Your task to perform on an android device: Go to eBay Image 0: 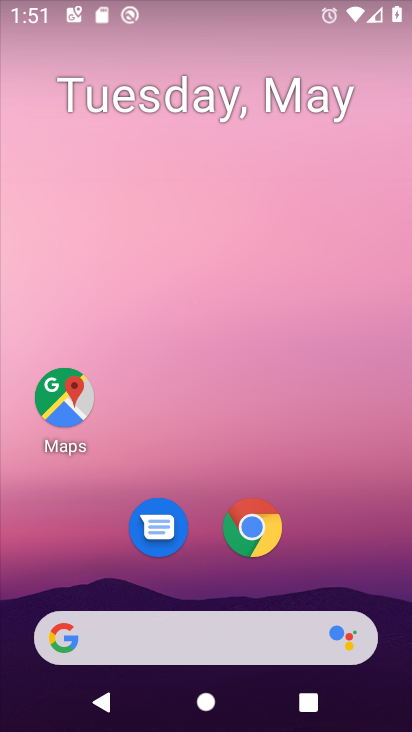
Step 0: click (407, 402)
Your task to perform on an android device: Go to eBay Image 1: 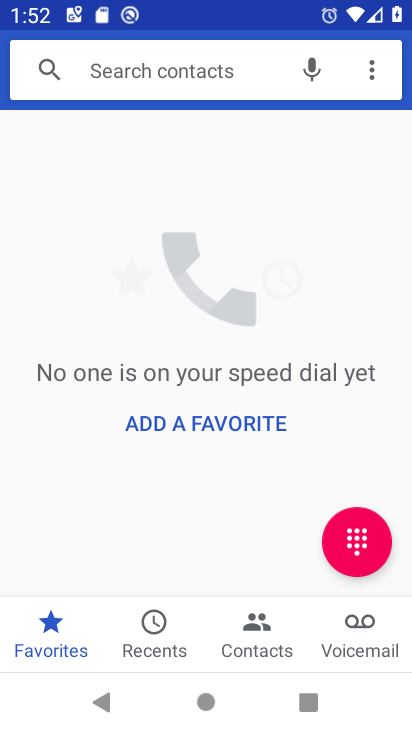
Step 1: press home button
Your task to perform on an android device: Go to eBay Image 2: 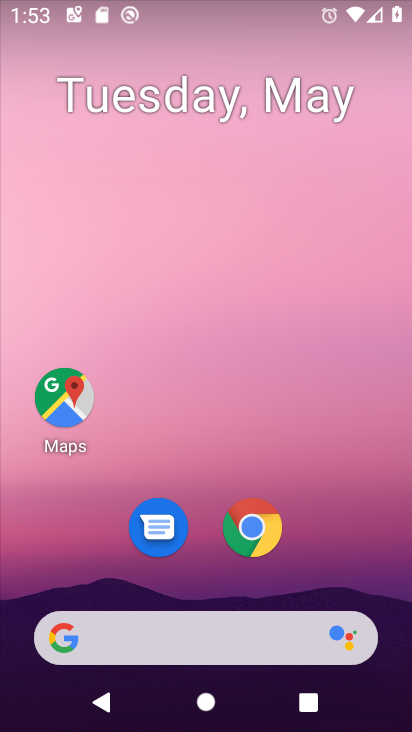
Step 2: drag from (245, 641) to (229, 84)
Your task to perform on an android device: Go to eBay Image 3: 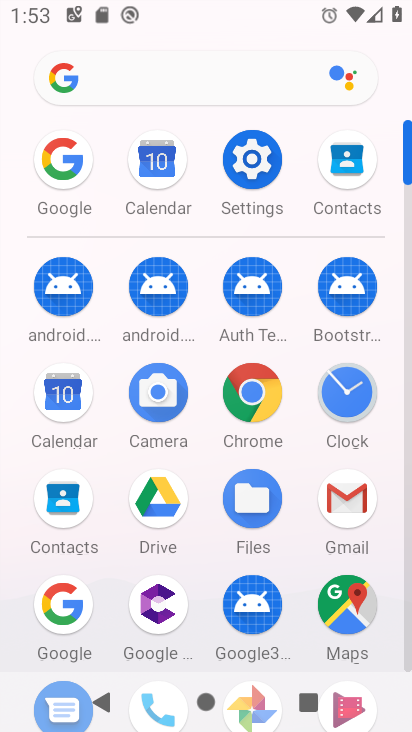
Step 3: click (56, 161)
Your task to perform on an android device: Go to eBay Image 4: 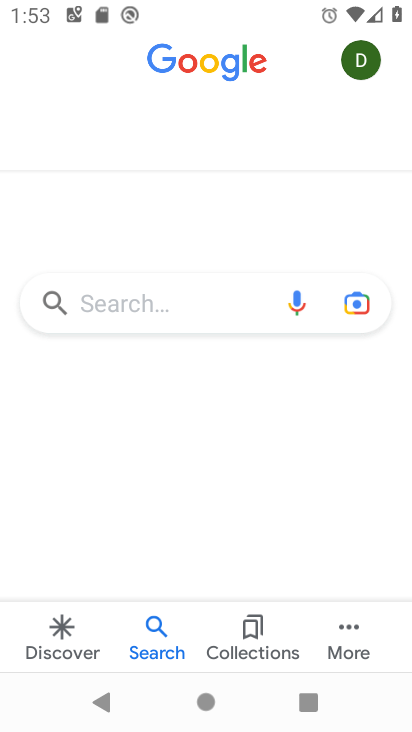
Step 4: click (215, 301)
Your task to perform on an android device: Go to eBay Image 5: 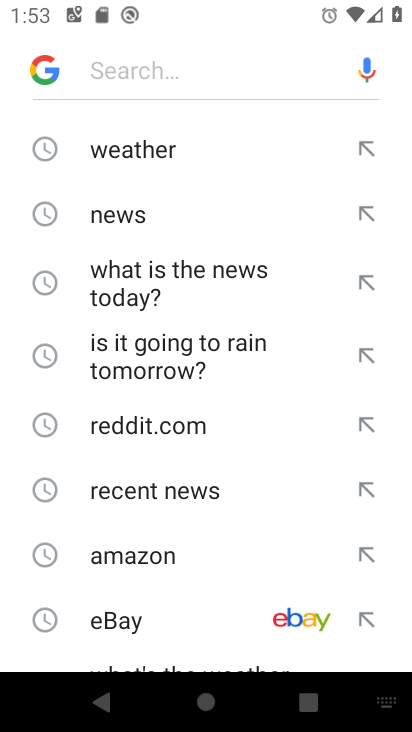
Step 5: click (301, 621)
Your task to perform on an android device: Go to eBay Image 6: 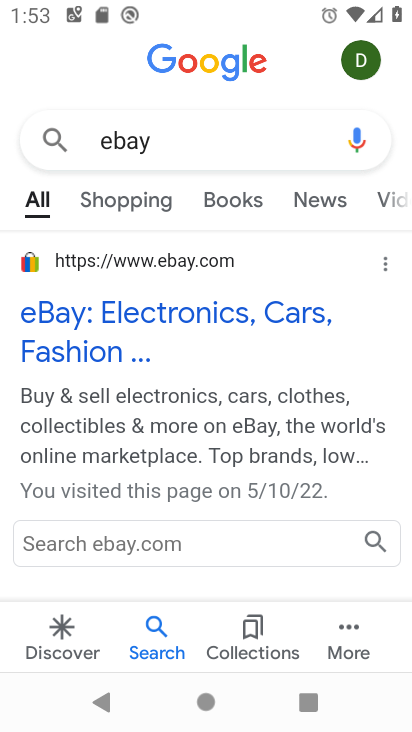
Step 6: click (163, 316)
Your task to perform on an android device: Go to eBay Image 7: 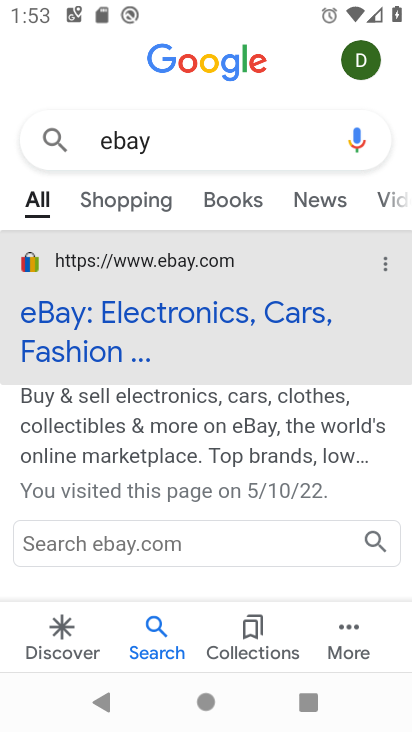
Step 7: click (182, 263)
Your task to perform on an android device: Go to eBay Image 8: 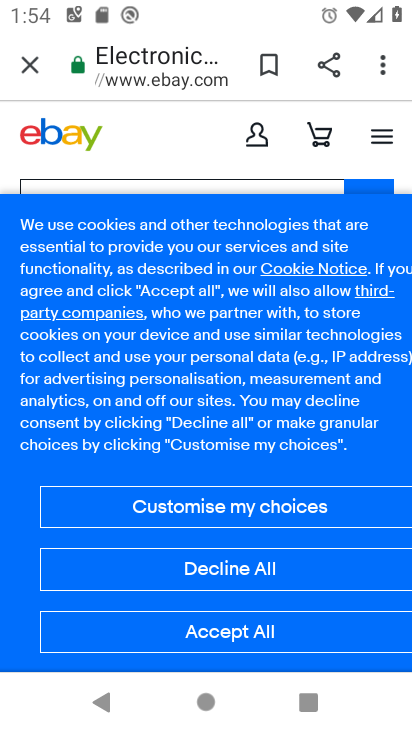
Step 8: task complete